Your task to perform on an android device: check the backup settings in the google photos Image 0: 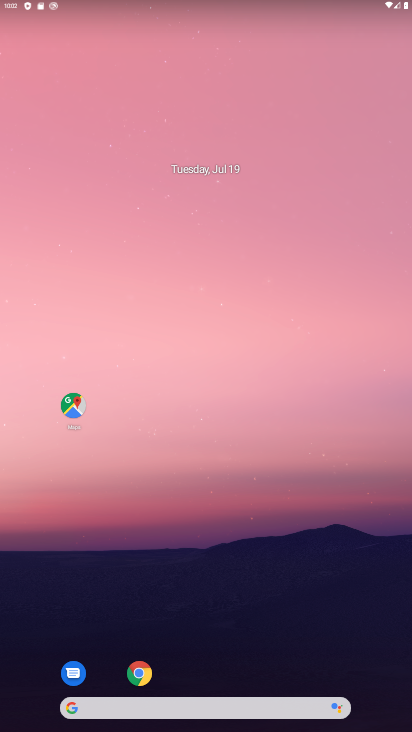
Step 0: press home button
Your task to perform on an android device: check the backup settings in the google photos Image 1: 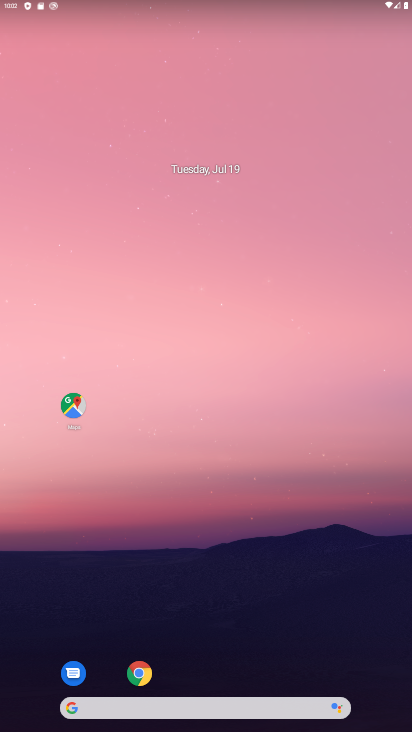
Step 1: drag from (335, 632) to (334, 69)
Your task to perform on an android device: check the backup settings in the google photos Image 2: 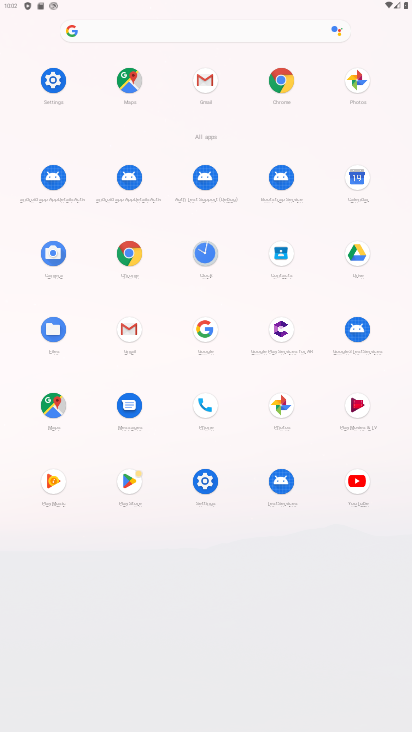
Step 2: click (278, 409)
Your task to perform on an android device: check the backup settings in the google photos Image 3: 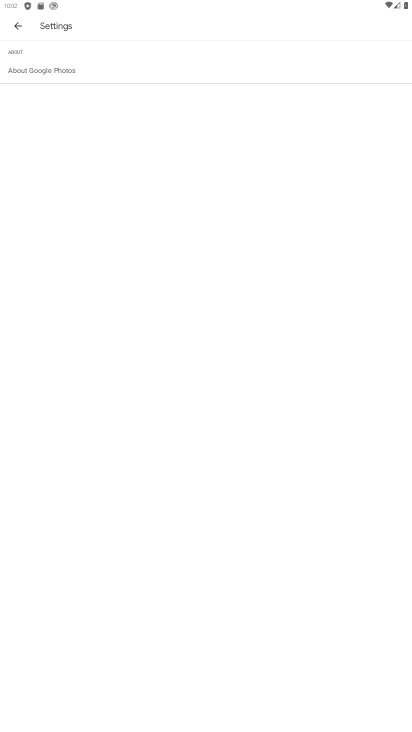
Step 3: press back button
Your task to perform on an android device: check the backup settings in the google photos Image 4: 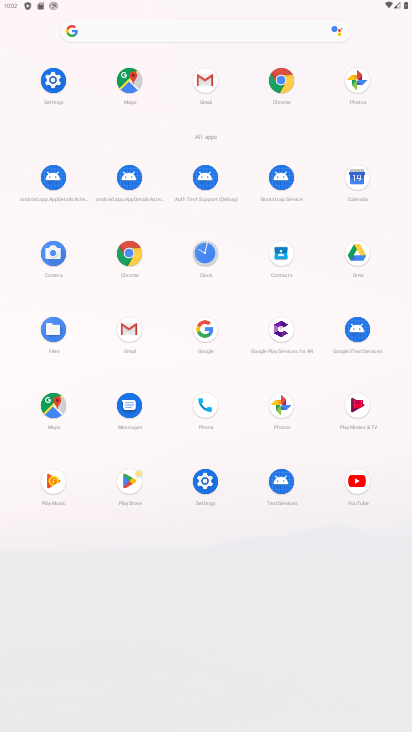
Step 4: click (285, 402)
Your task to perform on an android device: check the backup settings in the google photos Image 5: 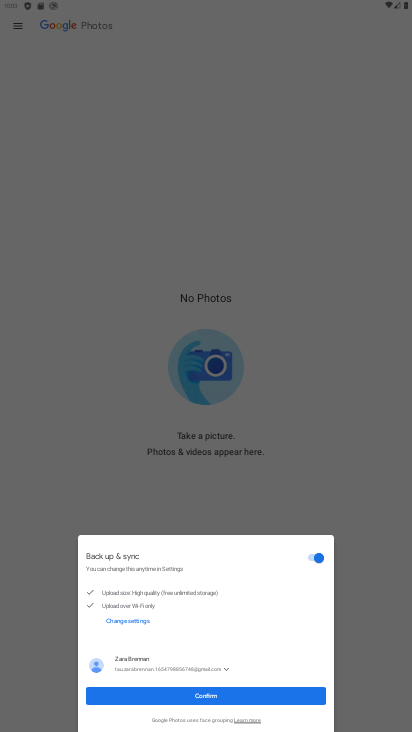
Step 5: click (223, 697)
Your task to perform on an android device: check the backup settings in the google photos Image 6: 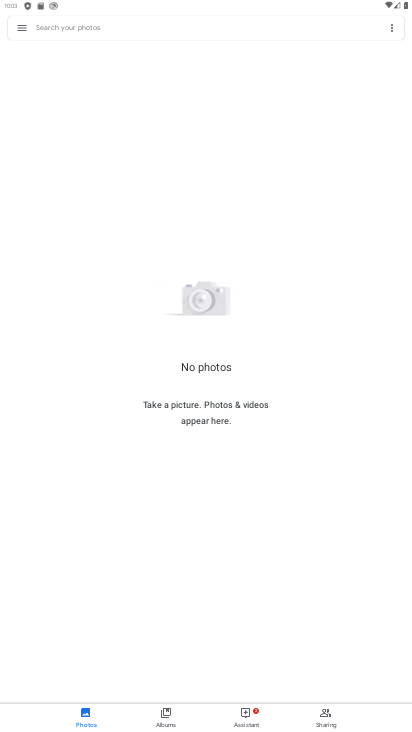
Step 6: click (24, 31)
Your task to perform on an android device: check the backup settings in the google photos Image 7: 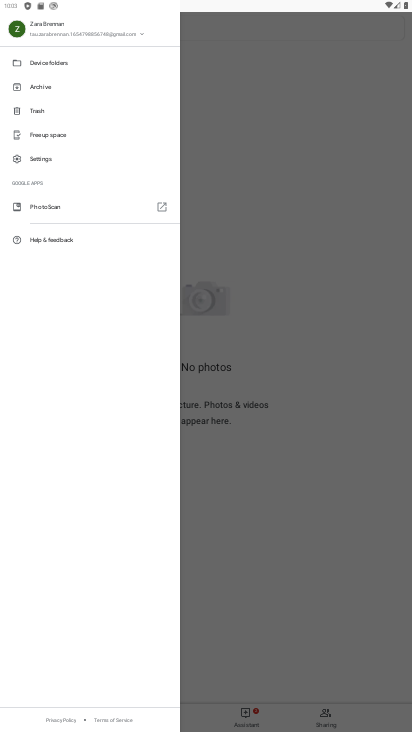
Step 7: click (60, 156)
Your task to perform on an android device: check the backup settings in the google photos Image 8: 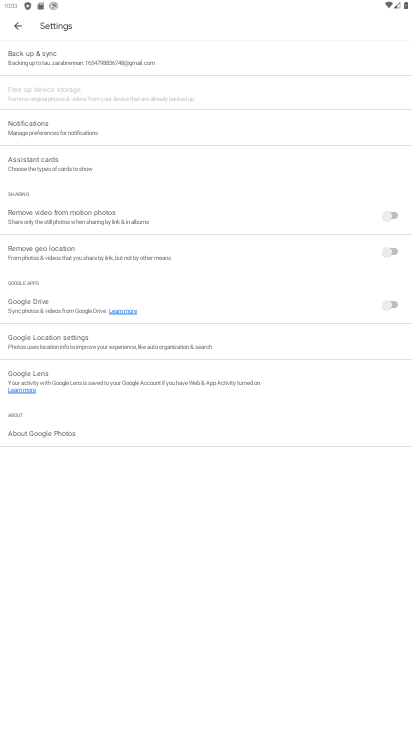
Step 8: click (170, 60)
Your task to perform on an android device: check the backup settings in the google photos Image 9: 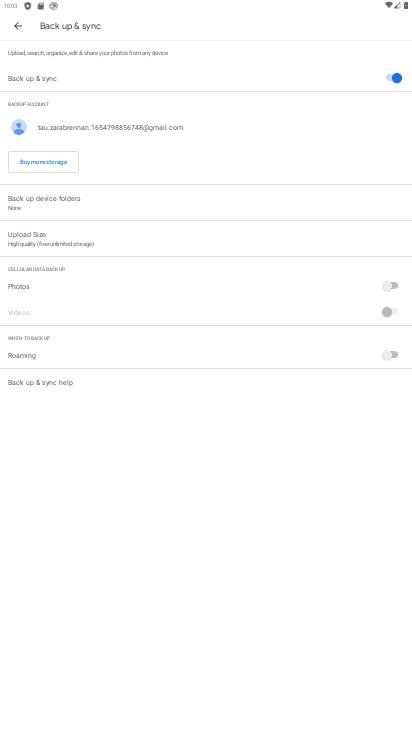
Step 9: task complete